Your task to perform on an android device: Add "bose quietcomfort 35" to the cart on newegg.com Image 0: 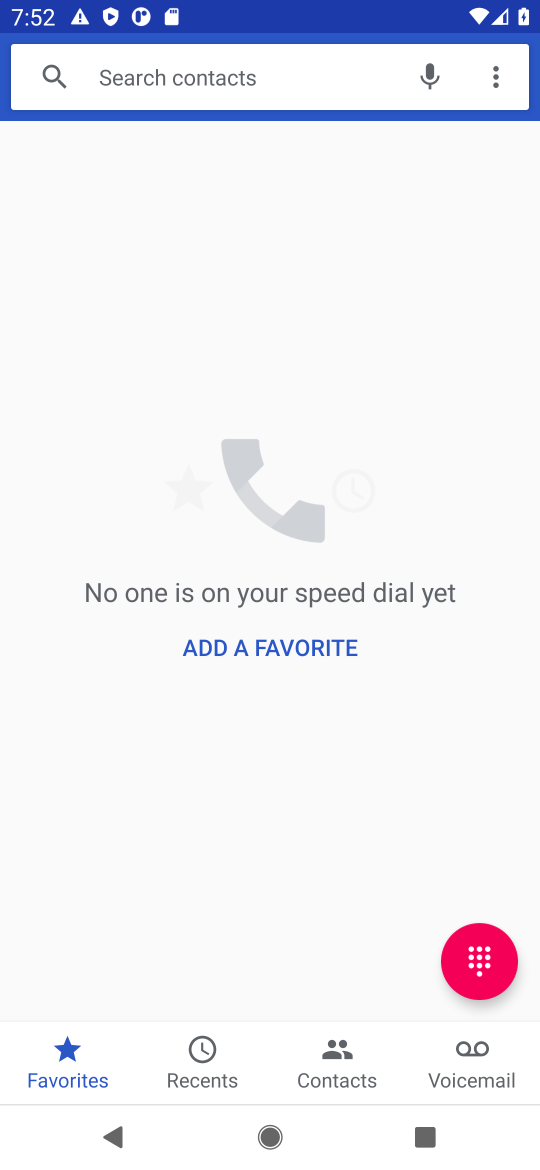
Step 0: press home button
Your task to perform on an android device: Add "bose quietcomfort 35" to the cart on newegg.com Image 1: 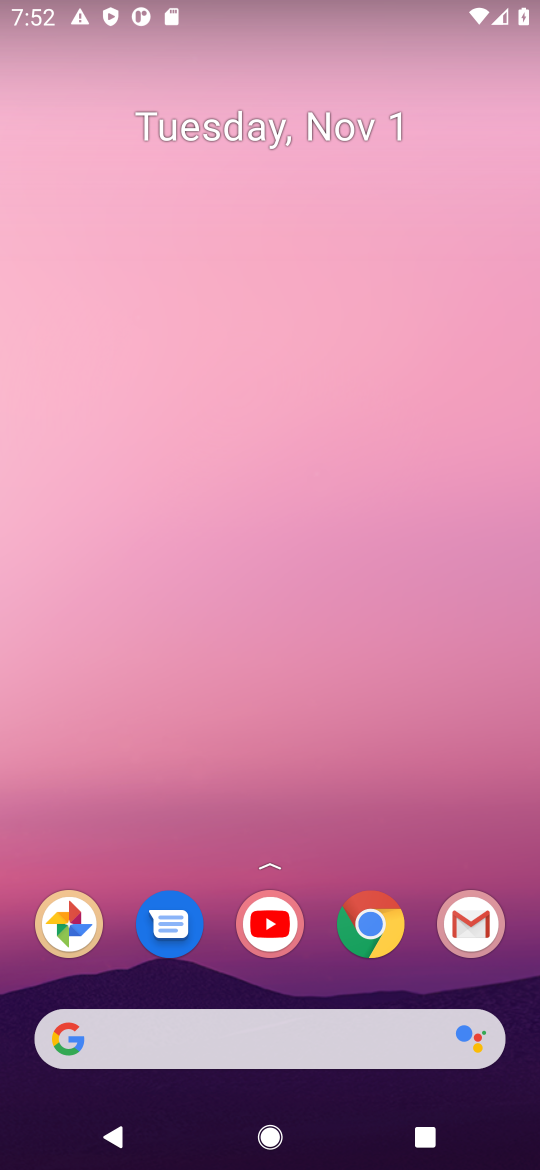
Step 1: click (101, 1027)
Your task to perform on an android device: Add "bose quietcomfort 35" to the cart on newegg.com Image 2: 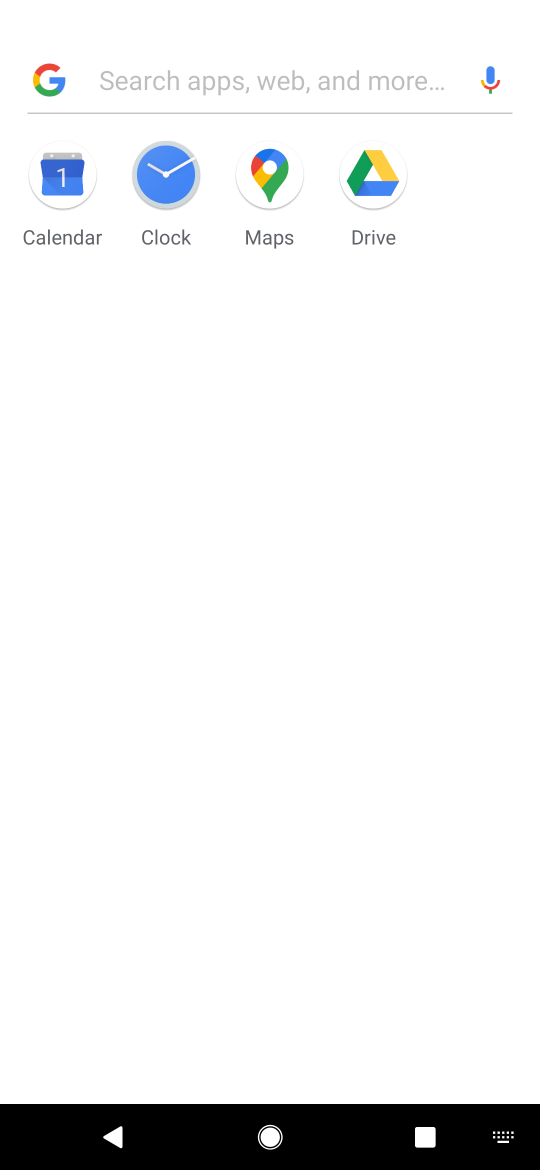
Step 2: type "newegg.com"
Your task to perform on an android device: Add "bose quietcomfort 35" to the cart on newegg.com Image 3: 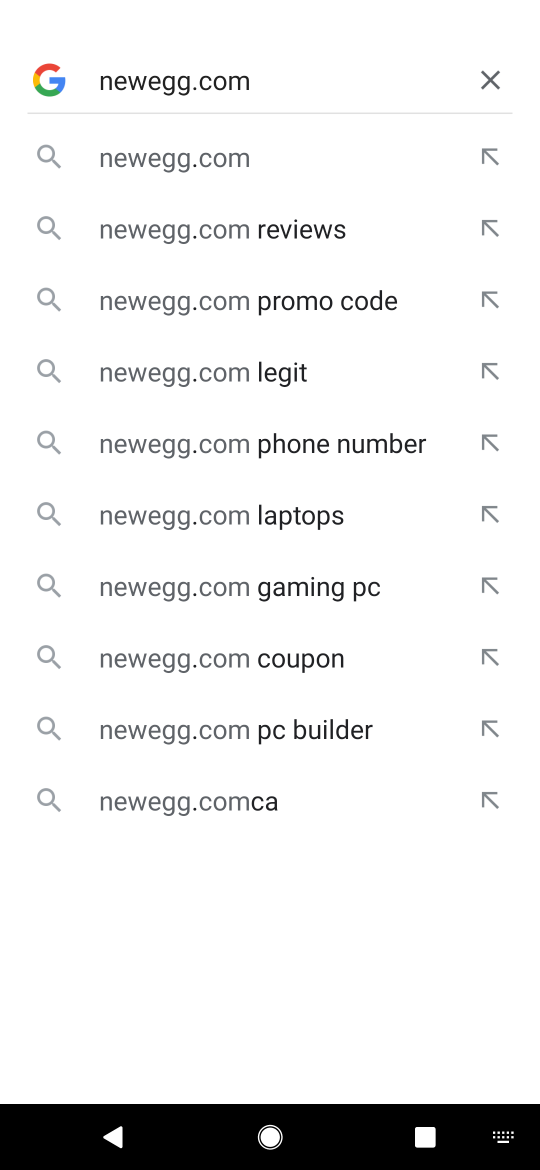
Step 3: press enter
Your task to perform on an android device: Add "bose quietcomfort 35" to the cart on newegg.com Image 4: 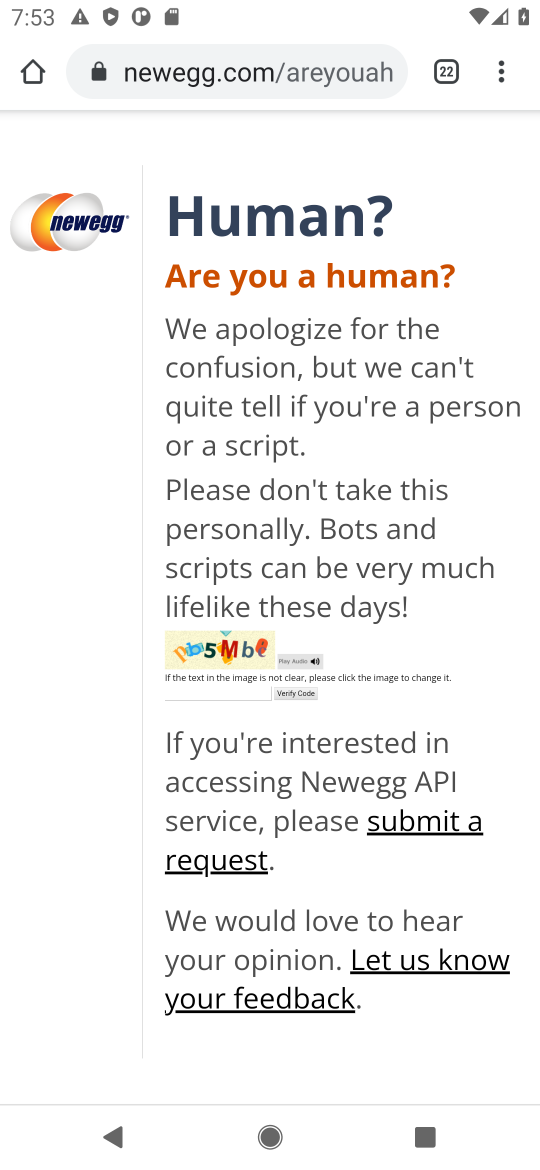
Step 4: drag from (341, 763) to (343, 441)
Your task to perform on an android device: Add "bose quietcomfort 35" to the cart on newegg.com Image 5: 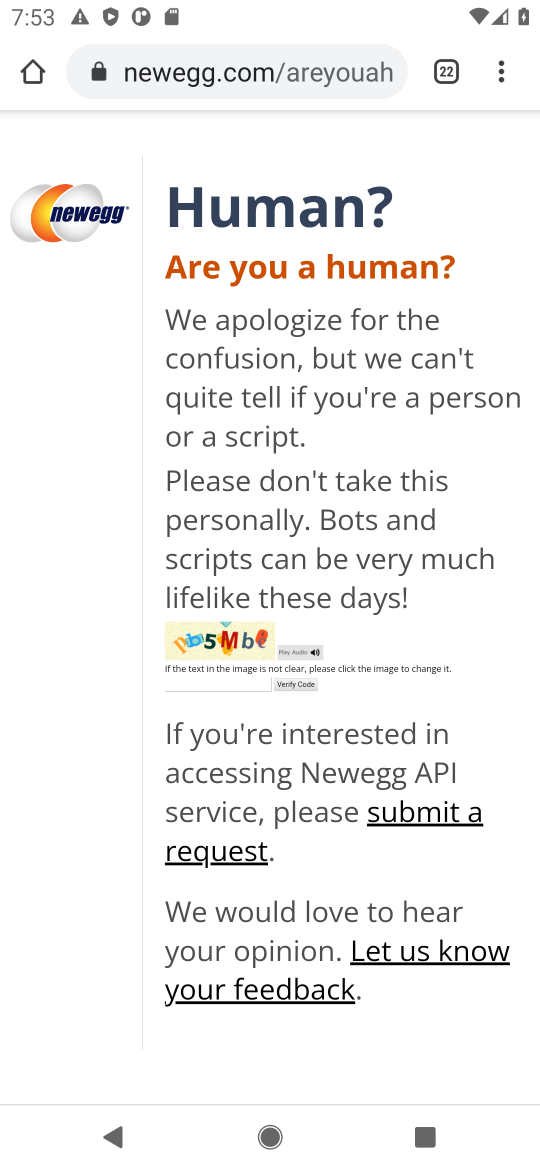
Step 5: click (186, 672)
Your task to perform on an android device: Add "bose quietcomfort 35" to the cart on newegg.com Image 6: 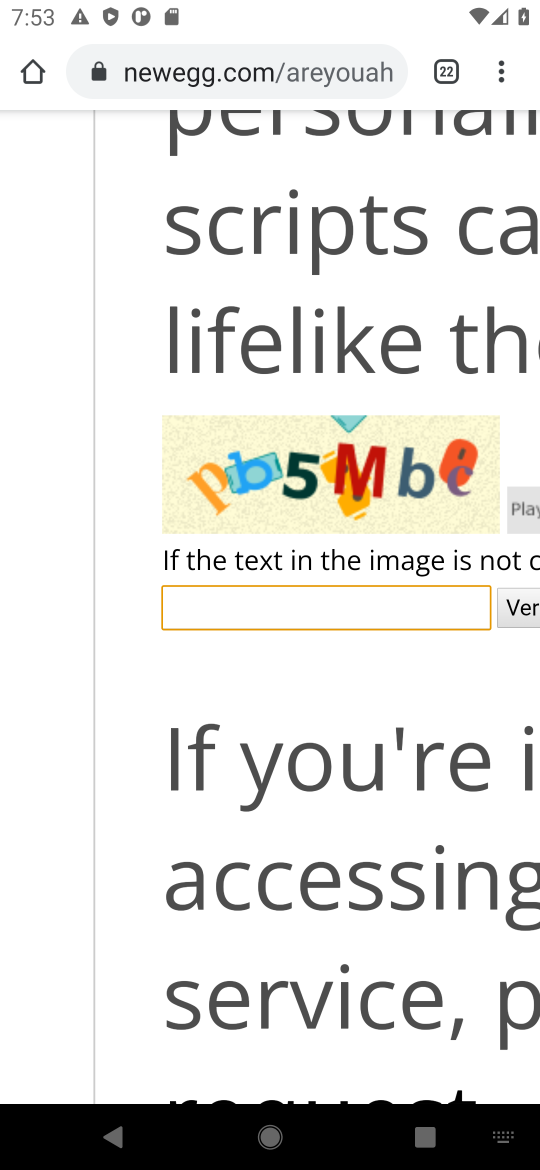
Step 6: type "Pb5Mbc"
Your task to perform on an android device: Add "bose quietcomfort 35" to the cart on newegg.com Image 7: 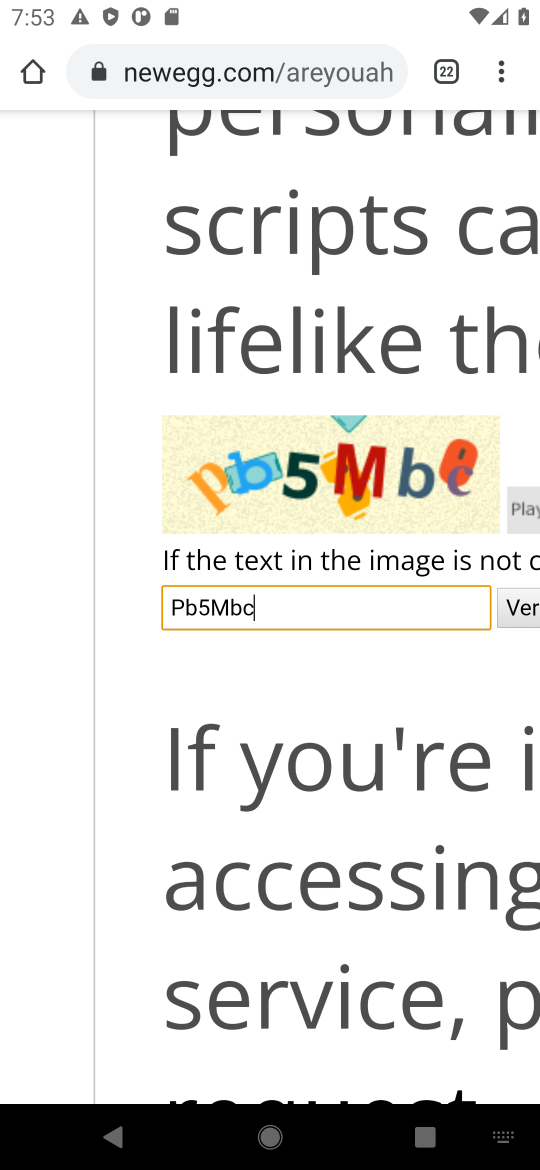
Step 7: press enter
Your task to perform on an android device: Add "bose quietcomfort 35" to the cart on newegg.com Image 8: 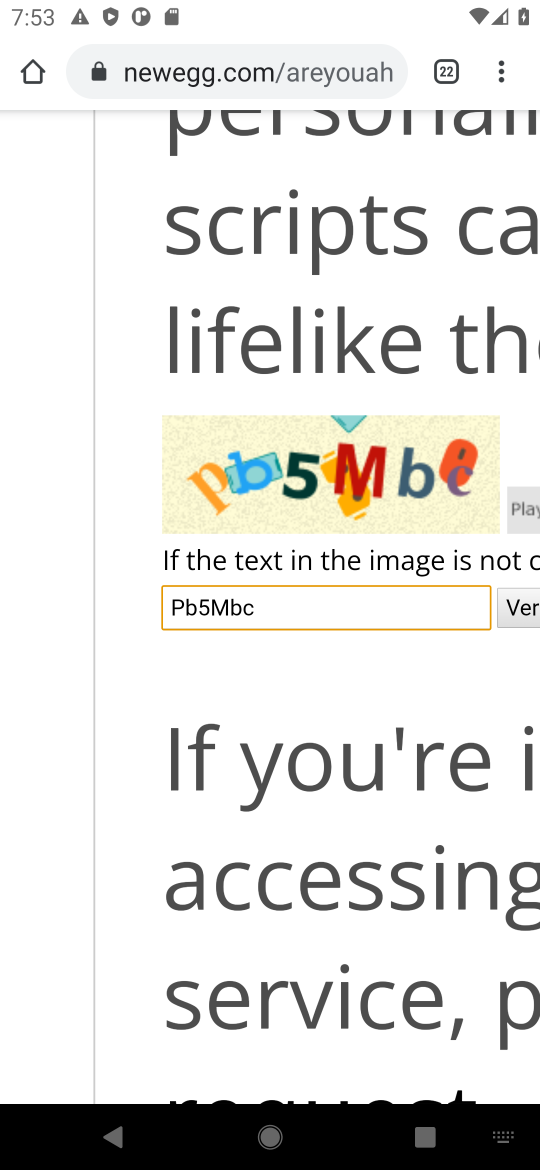
Step 8: drag from (412, 674) to (46, 624)
Your task to perform on an android device: Add "bose quietcomfort 35" to the cart on newegg.com Image 9: 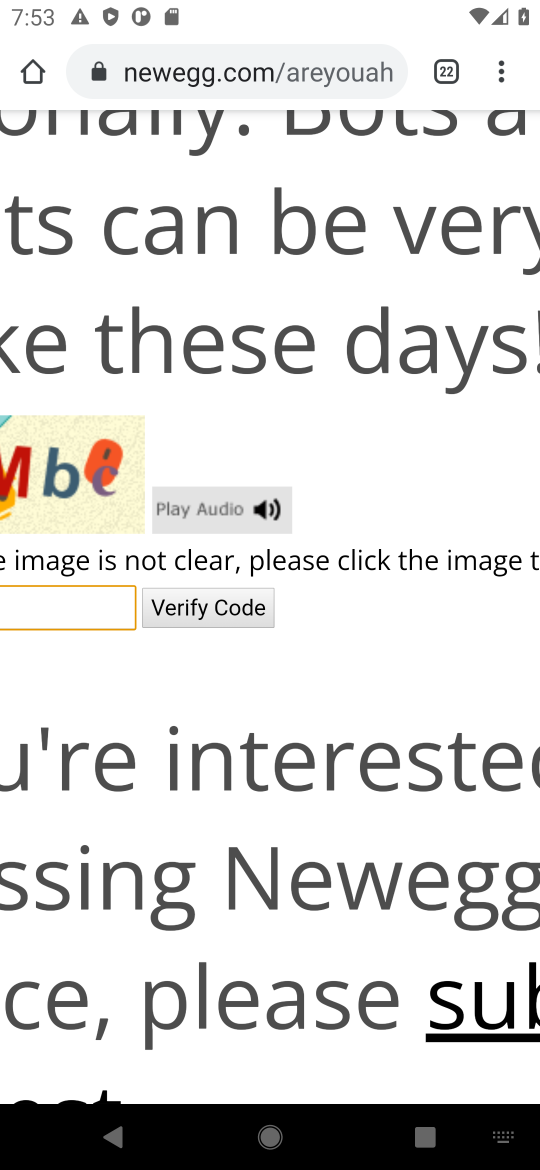
Step 9: click (220, 610)
Your task to perform on an android device: Add "bose quietcomfort 35" to the cart on newegg.com Image 10: 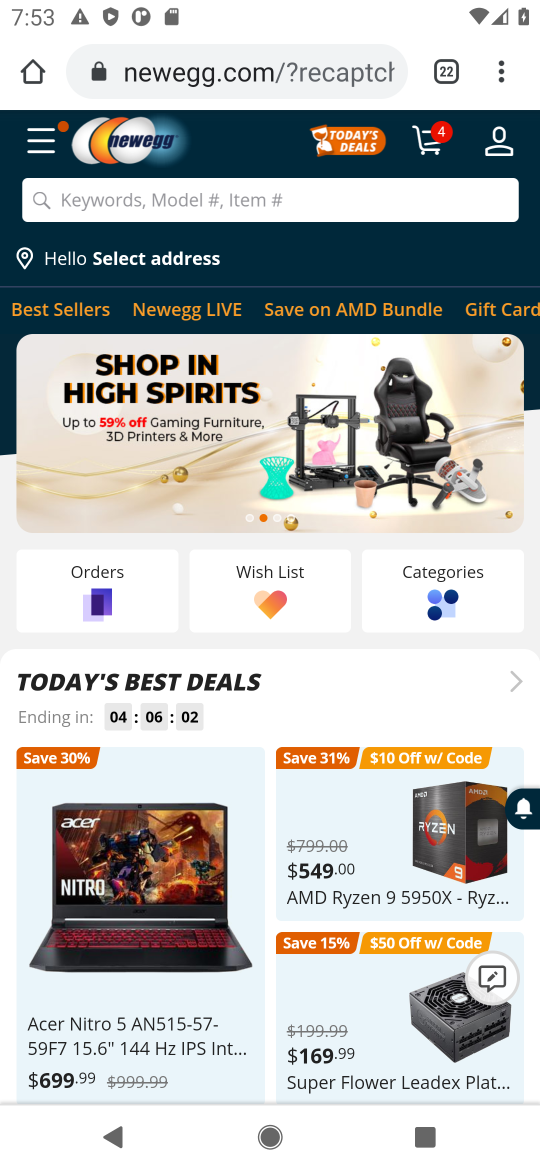
Step 10: click (123, 200)
Your task to perform on an android device: Add "bose quietcomfort 35" to the cart on newegg.com Image 11: 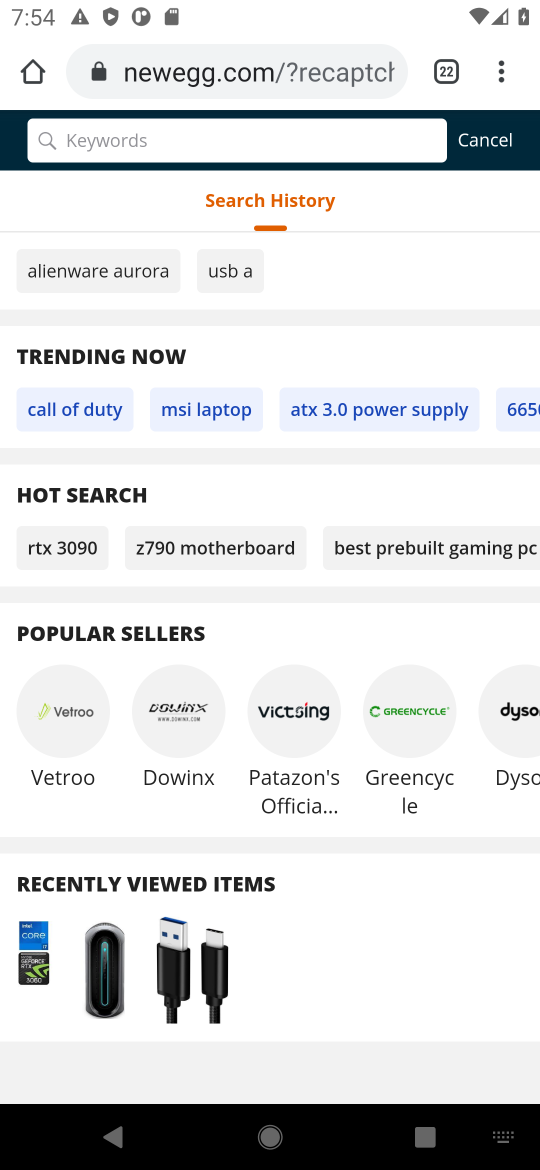
Step 11: type "bose quietcomfort 35"
Your task to perform on an android device: Add "bose quietcomfort 35" to the cart on newegg.com Image 12: 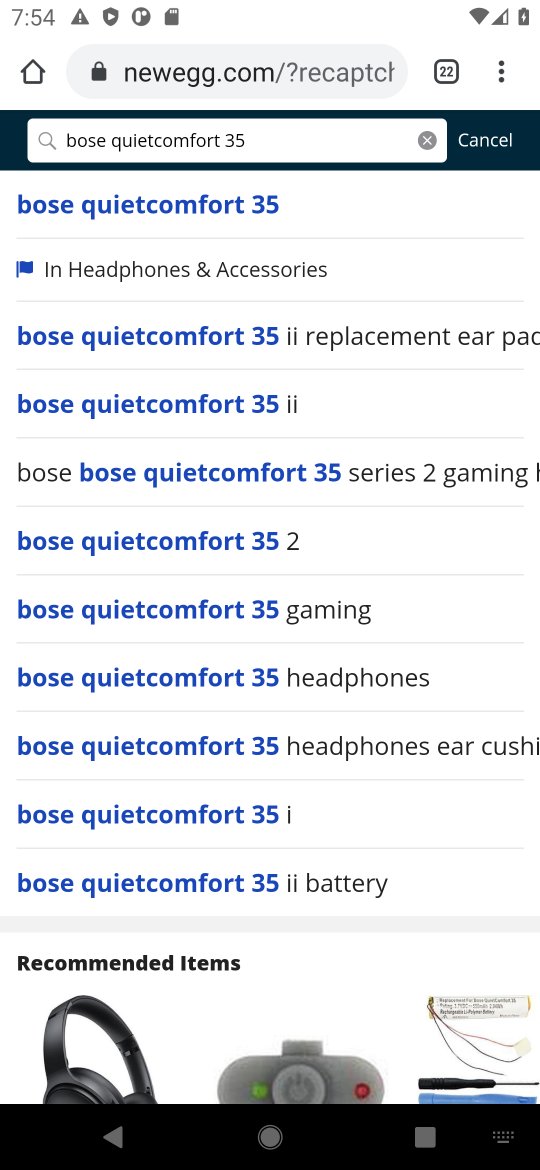
Step 12: press enter
Your task to perform on an android device: Add "bose quietcomfort 35" to the cart on newegg.com Image 13: 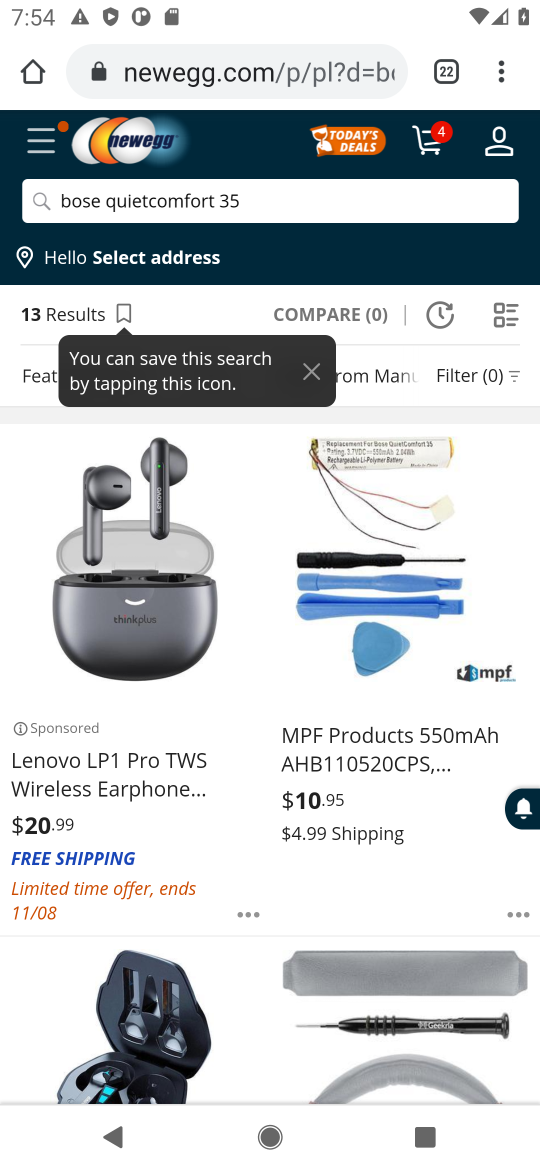
Step 13: drag from (289, 837) to (335, 496)
Your task to perform on an android device: Add "bose quietcomfort 35" to the cart on newegg.com Image 14: 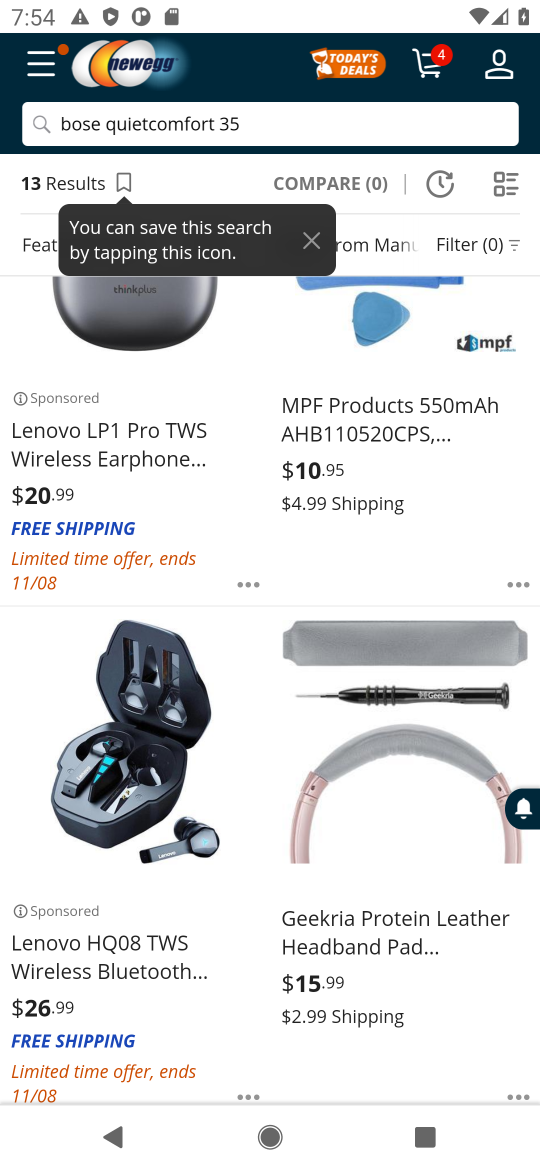
Step 14: drag from (253, 921) to (271, 493)
Your task to perform on an android device: Add "bose quietcomfort 35" to the cart on newegg.com Image 15: 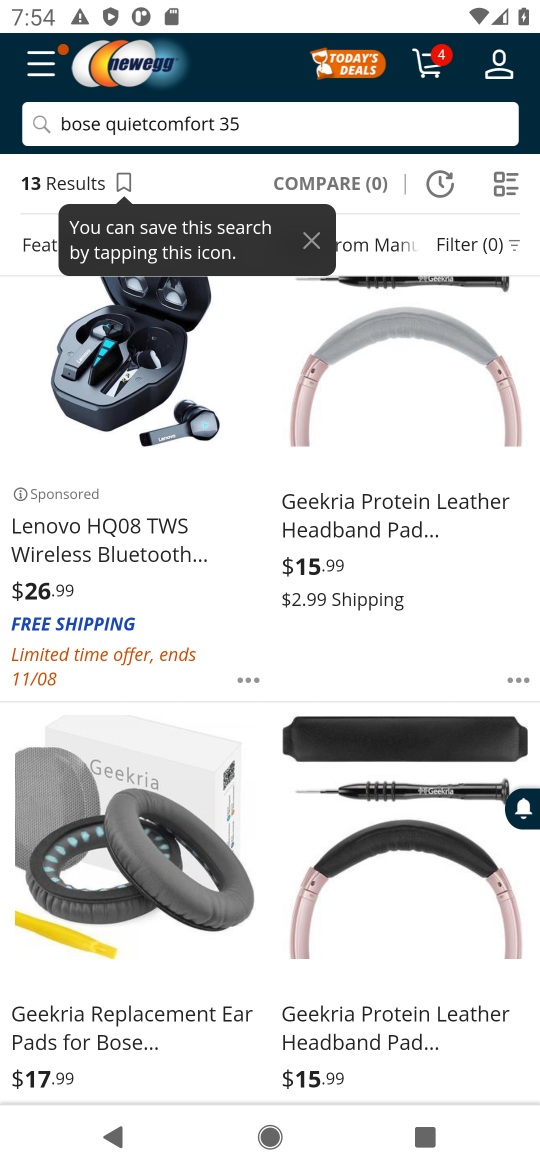
Step 15: drag from (268, 944) to (307, 486)
Your task to perform on an android device: Add "bose quietcomfort 35" to the cart on newegg.com Image 16: 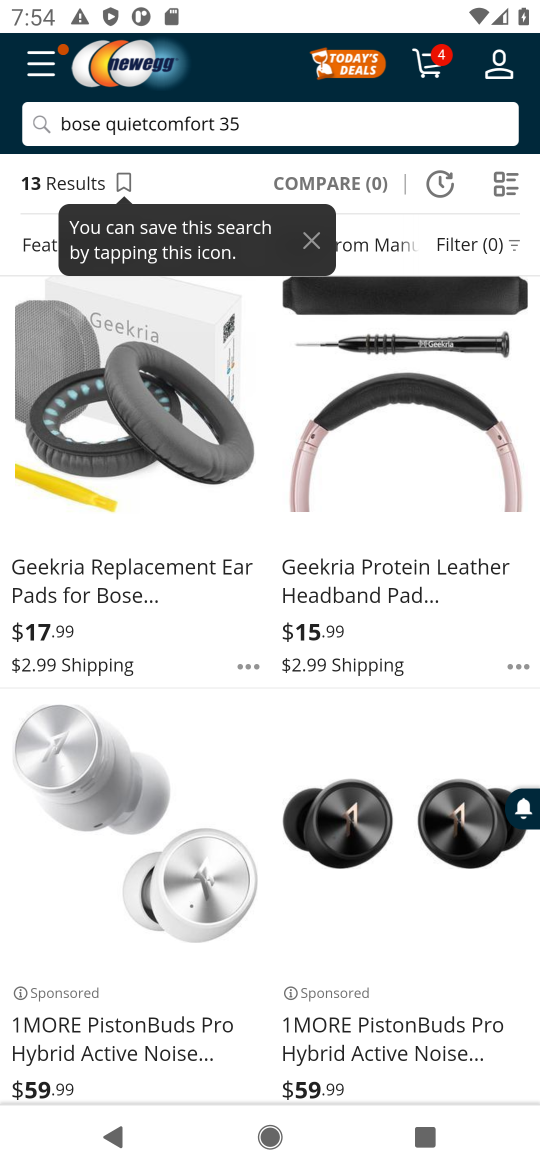
Step 16: drag from (266, 975) to (274, 572)
Your task to perform on an android device: Add "bose quietcomfort 35" to the cart on newegg.com Image 17: 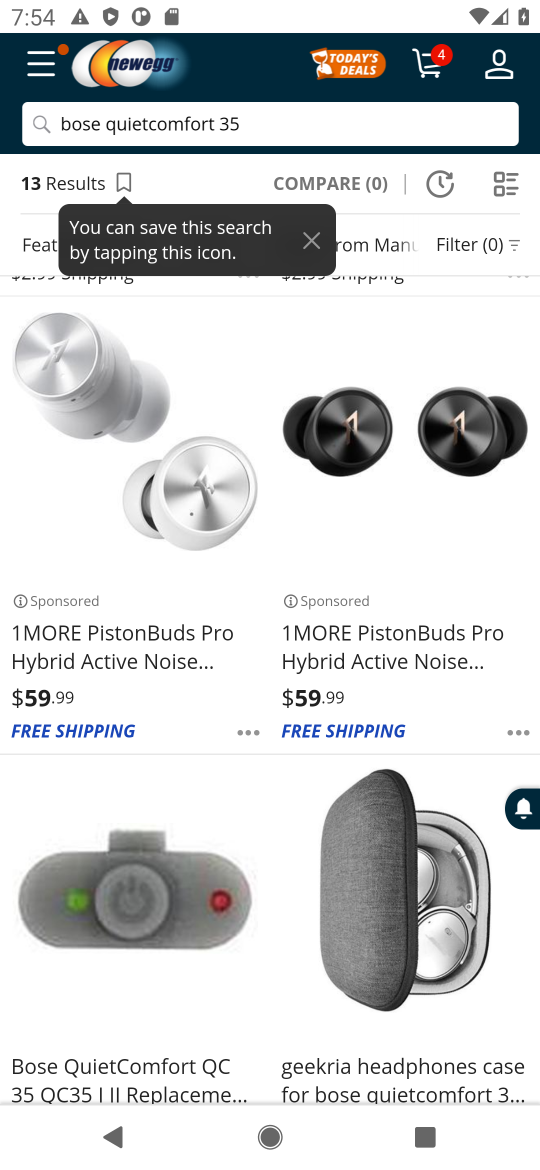
Step 17: drag from (280, 958) to (284, 636)
Your task to perform on an android device: Add "bose quietcomfort 35" to the cart on newegg.com Image 18: 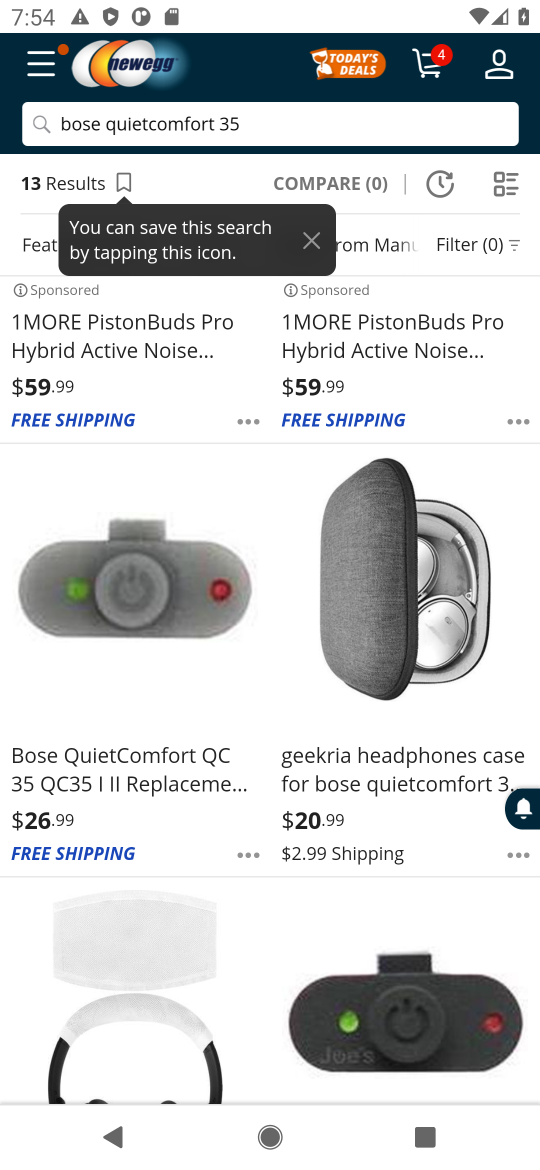
Step 18: drag from (243, 898) to (251, 633)
Your task to perform on an android device: Add "bose quietcomfort 35" to the cart on newegg.com Image 19: 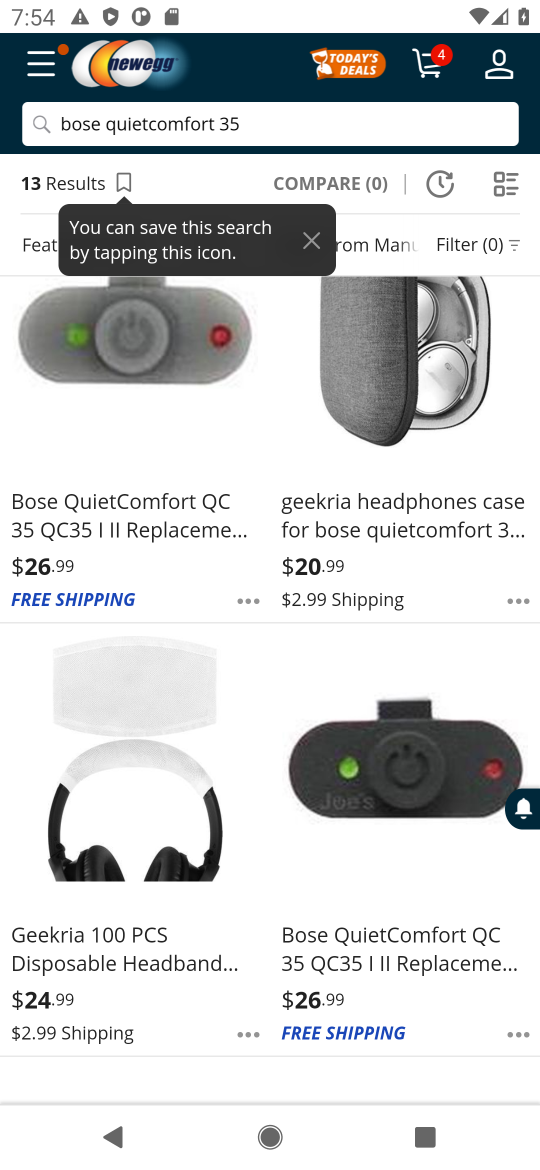
Step 19: click (129, 498)
Your task to perform on an android device: Add "bose quietcomfort 35" to the cart on newegg.com Image 20: 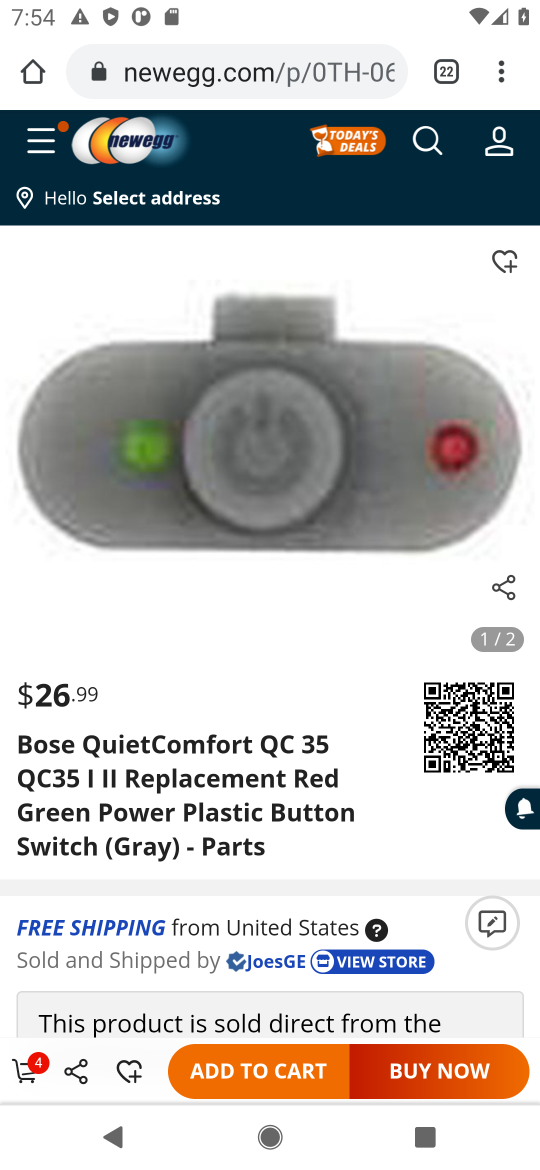
Step 20: click (225, 1081)
Your task to perform on an android device: Add "bose quietcomfort 35" to the cart on newegg.com Image 21: 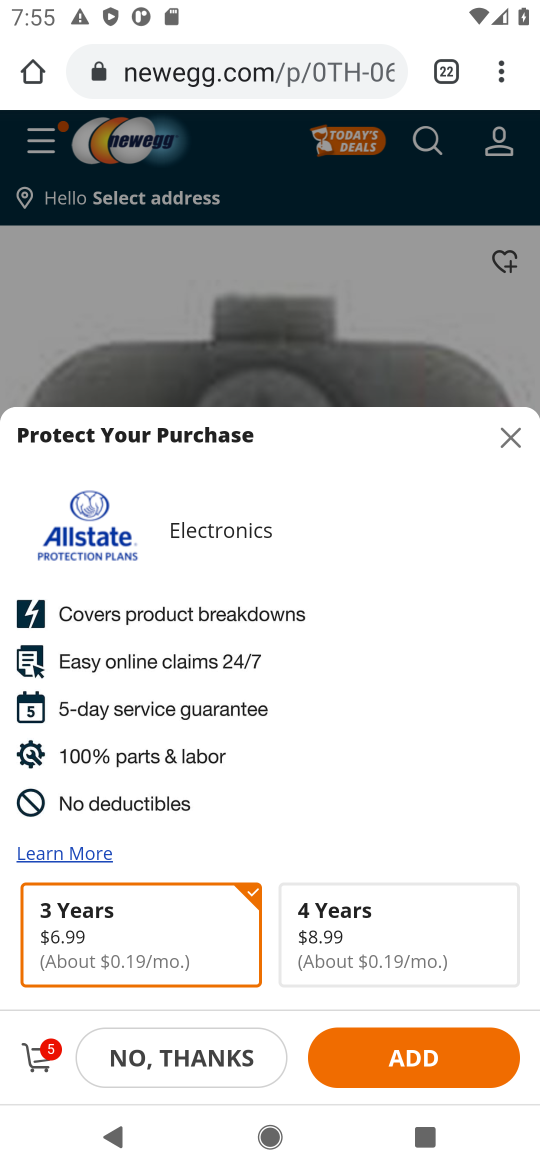
Step 21: task complete